Your task to perform on an android device: Open settings Image 0: 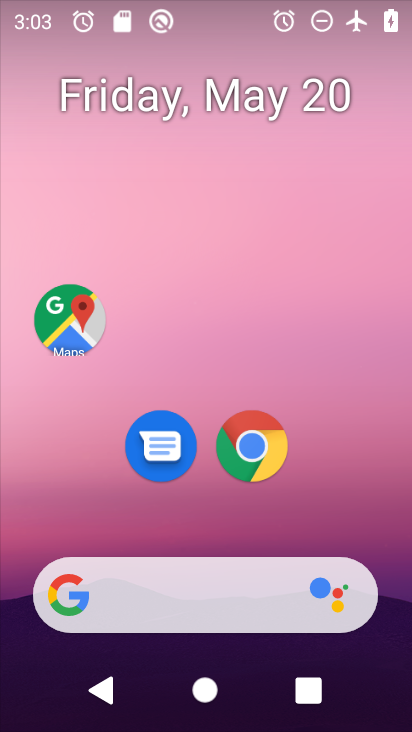
Step 0: drag from (371, 539) to (350, 11)
Your task to perform on an android device: Open settings Image 1: 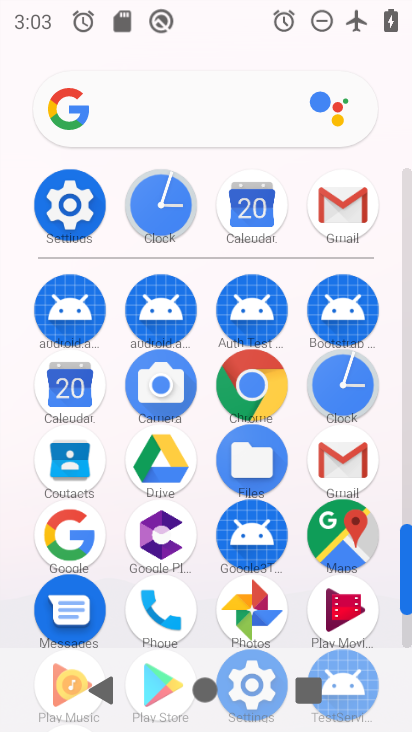
Step 1: click (67, 206)
Your task to perform on an android device: Open settings Image 2: 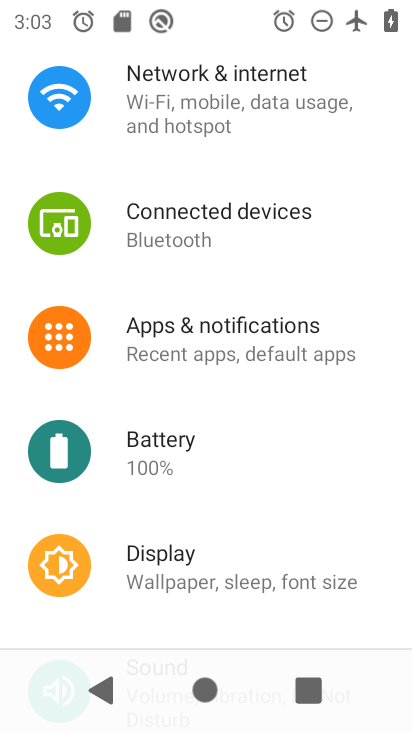
Step 2: task complete